Your task to perform on an android device: open wifi settings Image 0: 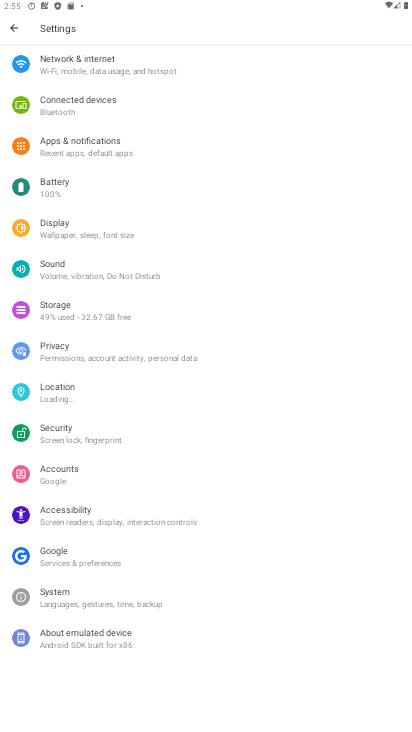
Step 0: click (92, 60)
Your task to perform on an android device: open wifi settings Image 1: 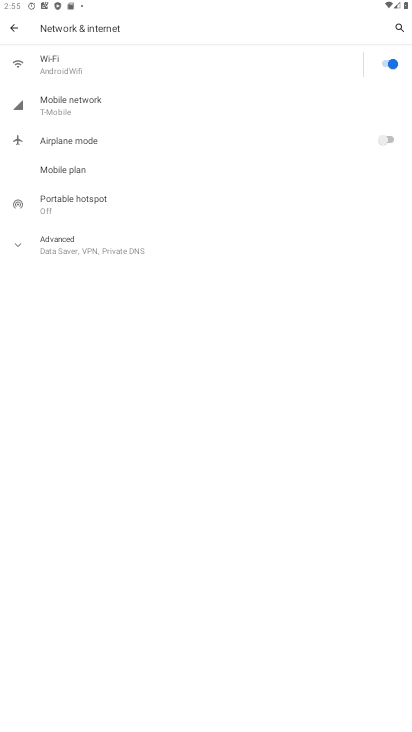
Step 1: click (83, 58)
Your task to perform on an android device: open wifi settings Image 2: 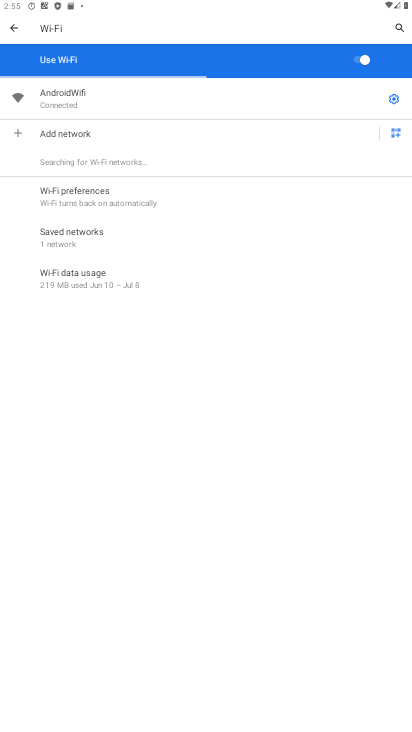
Step 2: click (396, 107)
Your task to perform on an android device: open wifi settings Image 3: 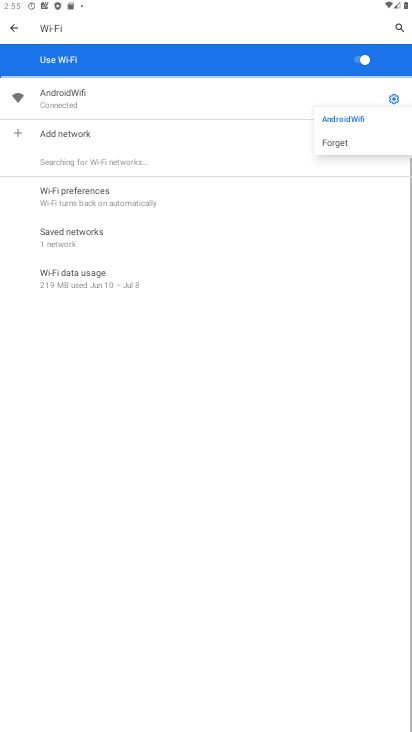
Step 3: task complete